Your task to perform on an android device: turn on the 12-hour format for clock Image 0: 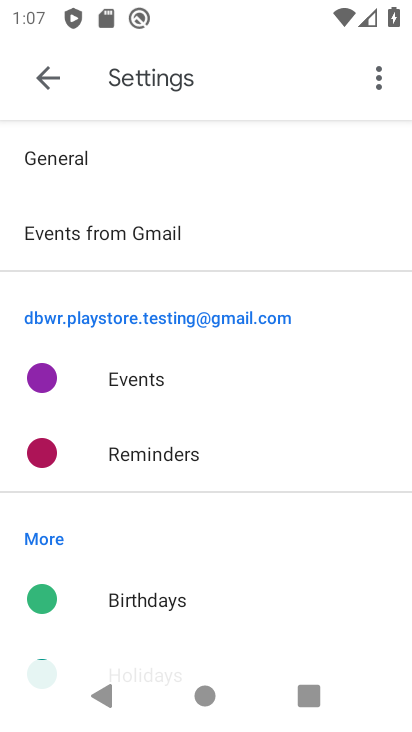
Step 0: press home button
Your task to perform on an android device: turn on the 12-hour format for clock Image 1: 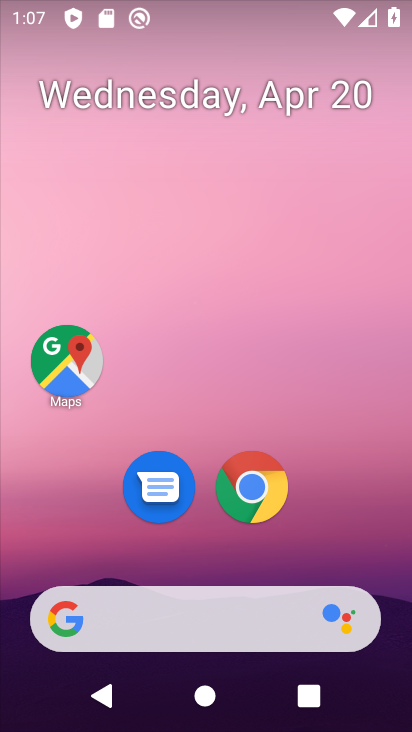
Step 1: drag from (373, 566) to (224, 30)
Your task to perform on an android device: turn on the 12-hour format for clock Image 2: 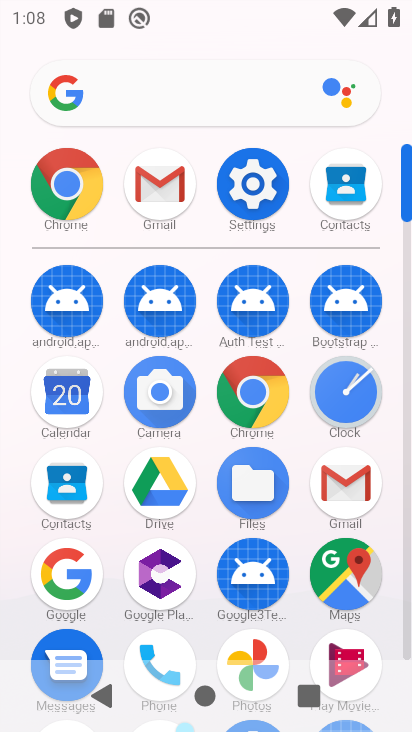
Step 2: click (326, 389)
Your task to perform on an android device: turn on the 12-hour format for clock Image 3: 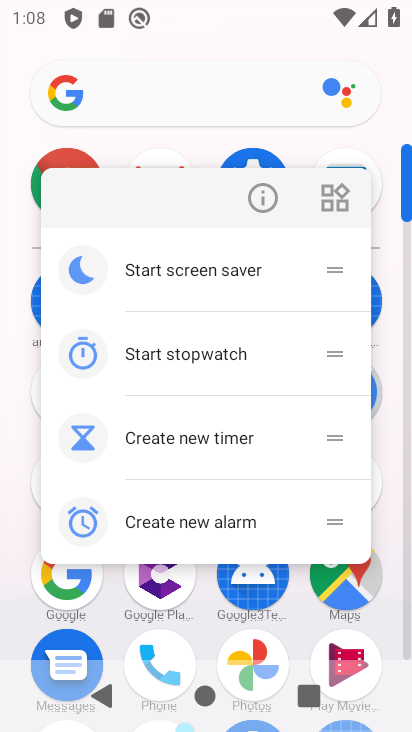
Step 3: press back button
Your task to perform on an android device: turn on the 12-hour format for clock Image 4: 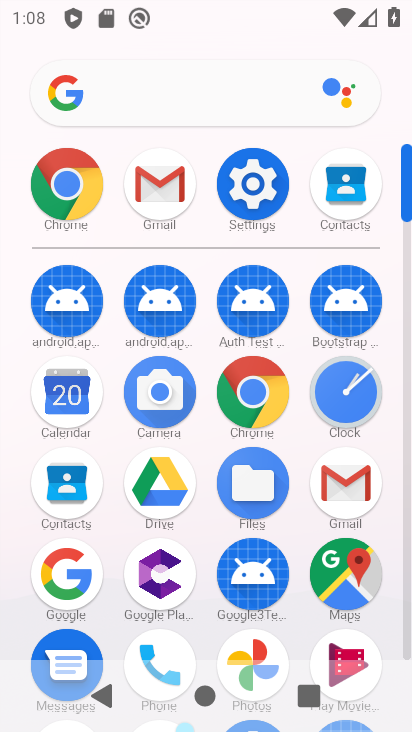
Step 4: click (361, 374)
Your task to perform on an android device: turn on the 12-hour format for clock Image 5: 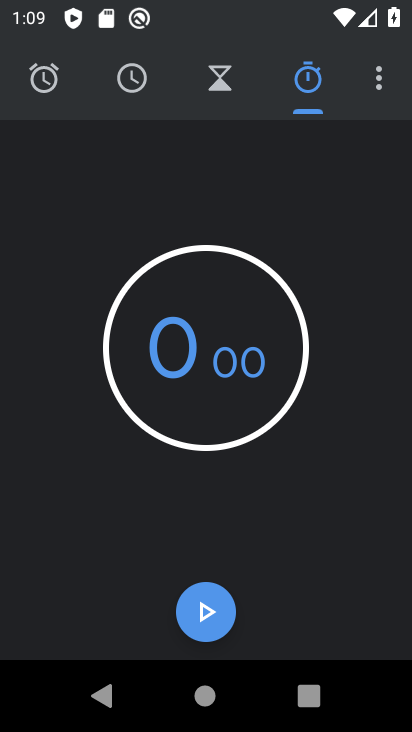
Step 5: click (377, 88)
Your task to perform on an android device: turn on the 12-hour format for clock Image 6: 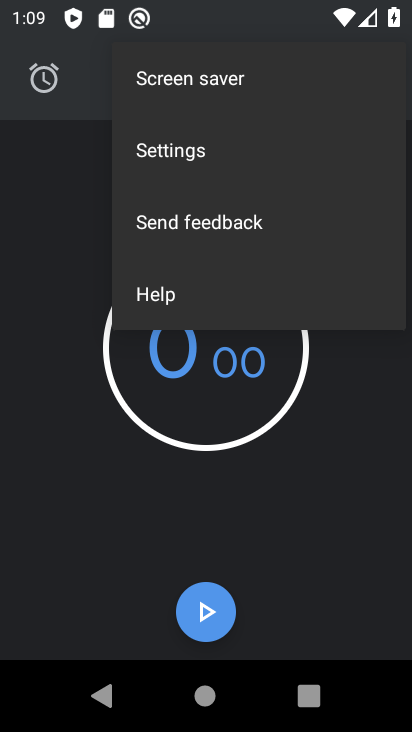
Step 6: click (298, 149)
Your task to perform on an android device: turn on the 12-hour format for clock Image 7: 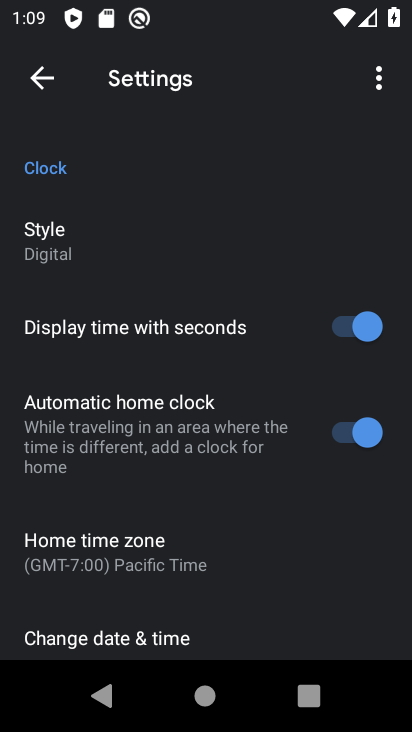
Step 7: click (140, 636)
Your task to perform on an android device: turn on the 12-hour format for clock Image 8: 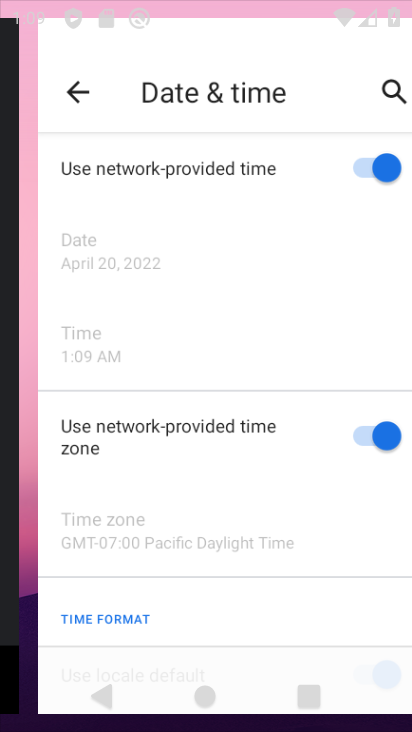
Step 8: task complete